Your task to perform on an android device: turn on improve location accuracy Image 0: 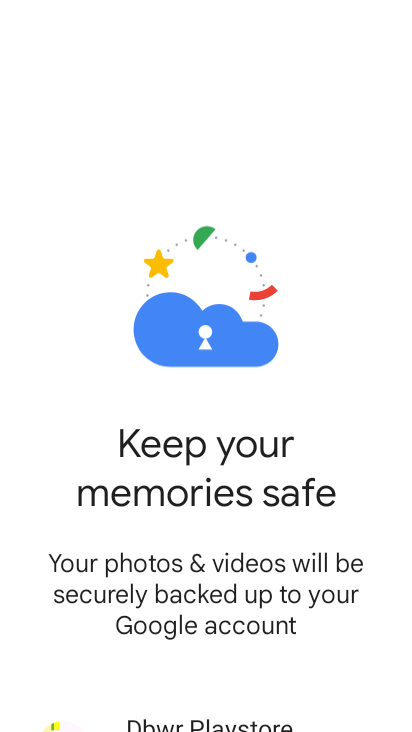
Step 0: task complete